Your task to perform on an android device: set the timer Image 0: 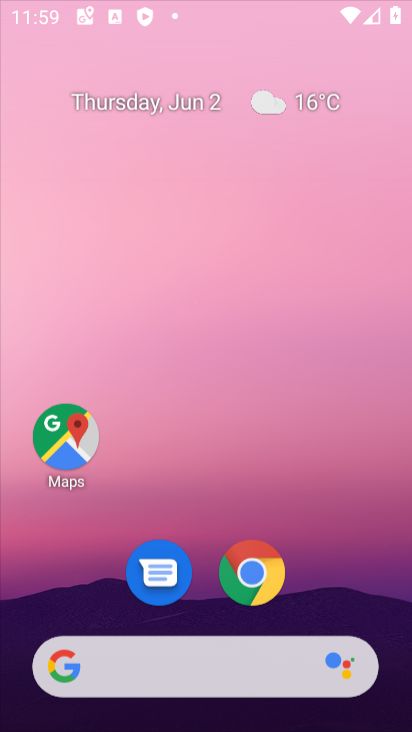
Step 0: click (388, 130)
Your task to perform on an android device: set the timer Image 1: 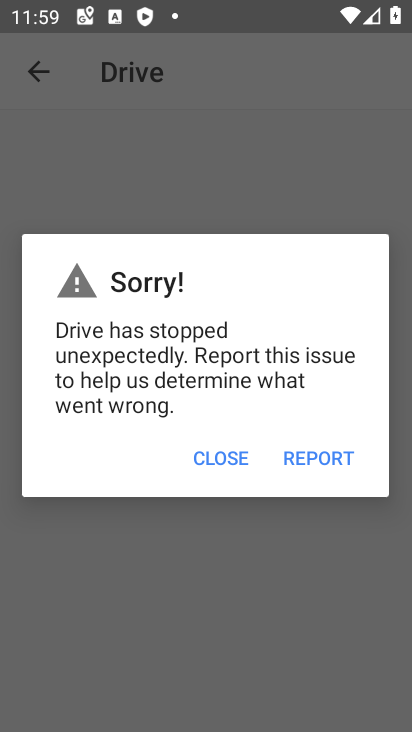
Step 1: drag from (334, 554) to (329, 9)
Your task to perform on an android device: set the timer Image 2: 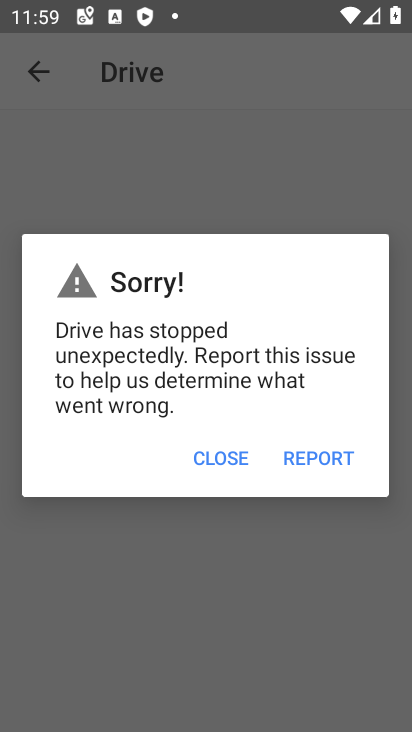
Step 2: press home button
Your task to perform on an android device: set the timer Image 3: 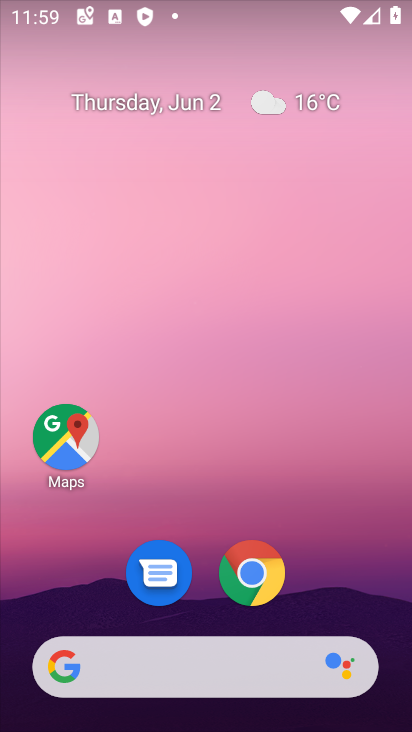
Step 3: drag from (361, 550) to (274, 29)
Your task to perform on an android device: set the timer Image 4: 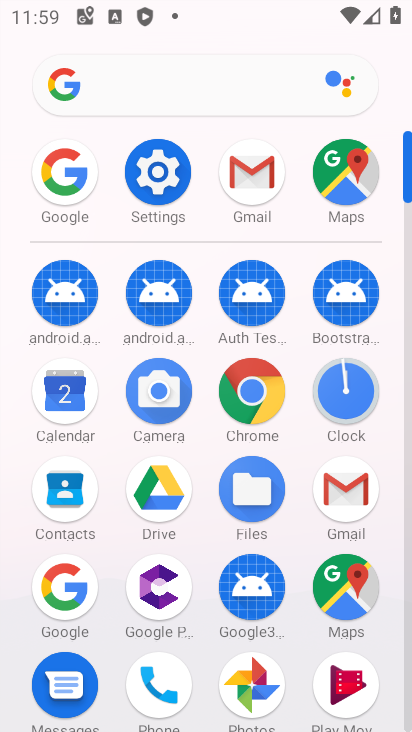
Step 4: click (362, 418)
Your task to perform on an android device: set the timer Image 5: 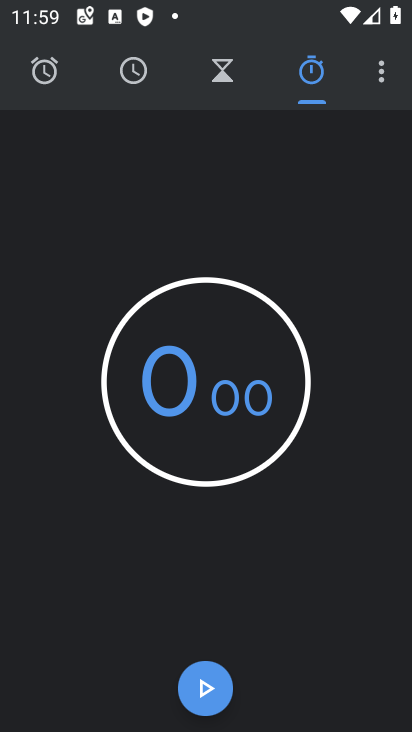
Step 5: click (225, 76)
Your task to perform on an android device: set the timer Image 6: 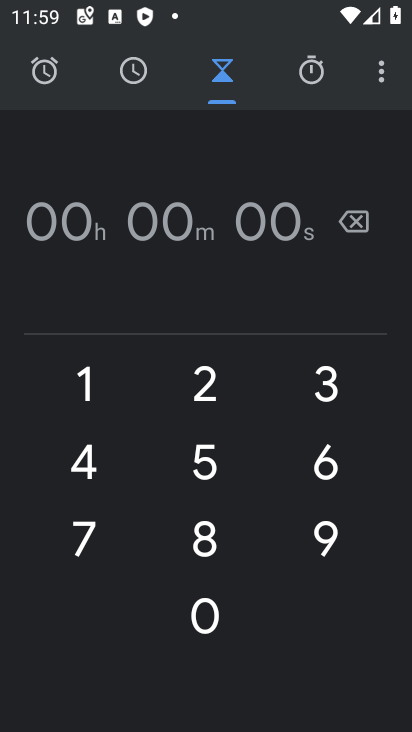
Step 6: click (232, 399)
Your task to perform on an android device: set the timer Image 7: 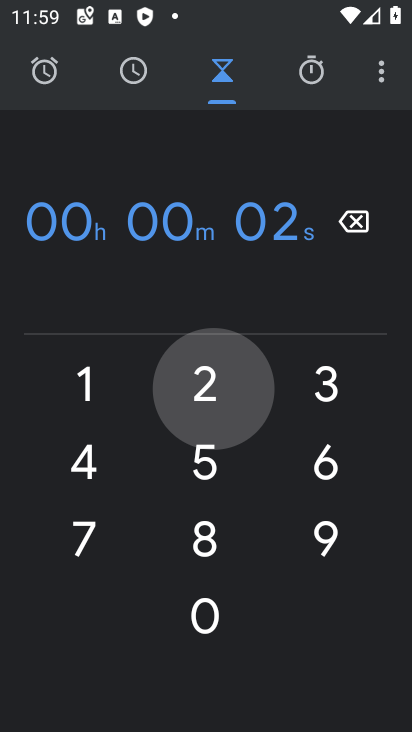
Step 7: click (215, 462)
Your task to perform on an android device: set the timer Image 8: 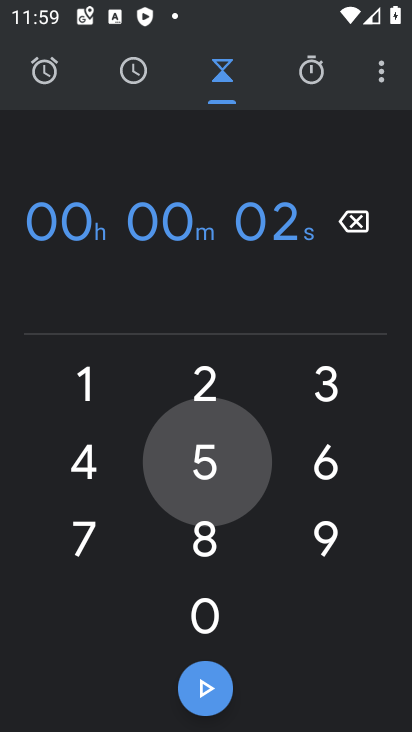
Step 8: click (217, 376)
Your task to perform on an android device: set the timer Image 9: 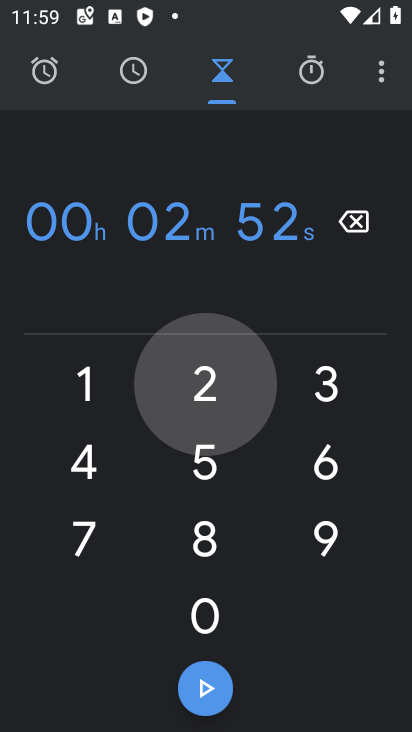
Step 9: click (197, 465)
Your task to perform on an android device: set the timer Image 10: 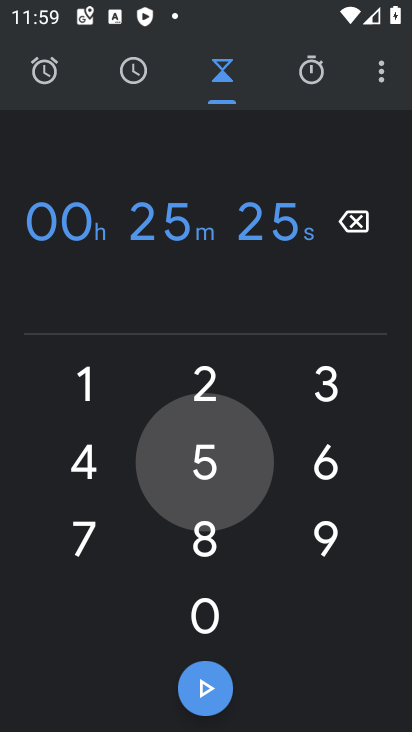
Step 10: click (215, 395)
Your task to perform on an android device: set the timer Image 11: 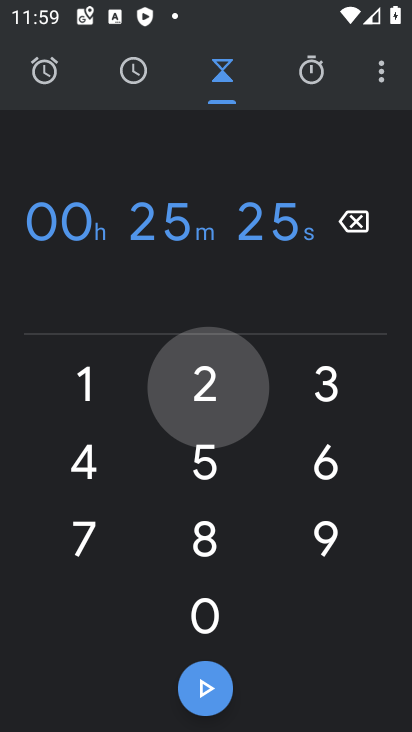
Step 11: click (200, 452)
Your task to perform on an android device: set the timer Image 12: 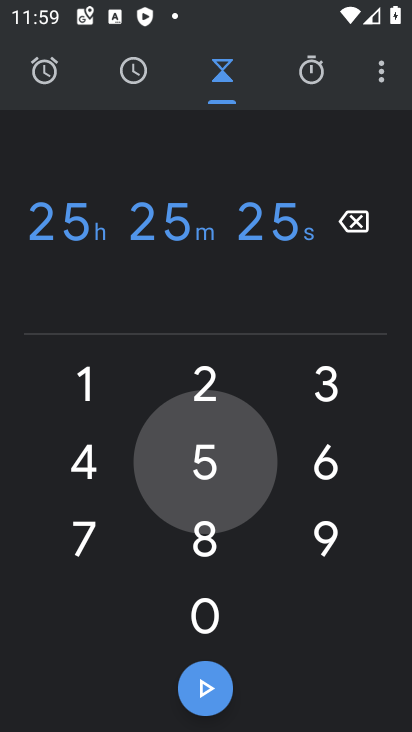
Step 12: click (207, 412)
Your task to perform on an android device: set the timer Image 13: 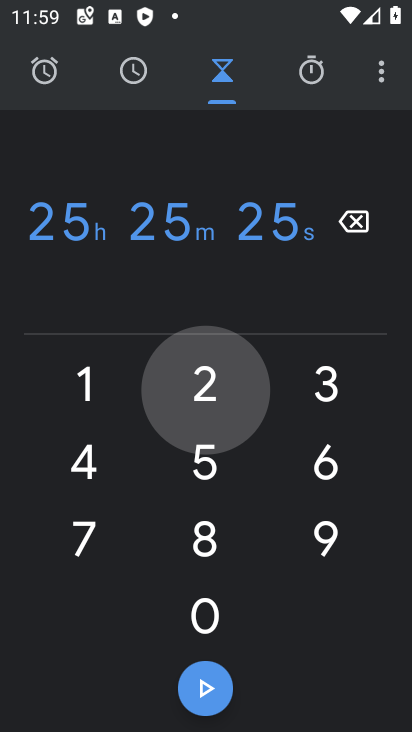
Step 13: click (199, 450)
Your task to perform on an android device: set the timer Image 14: 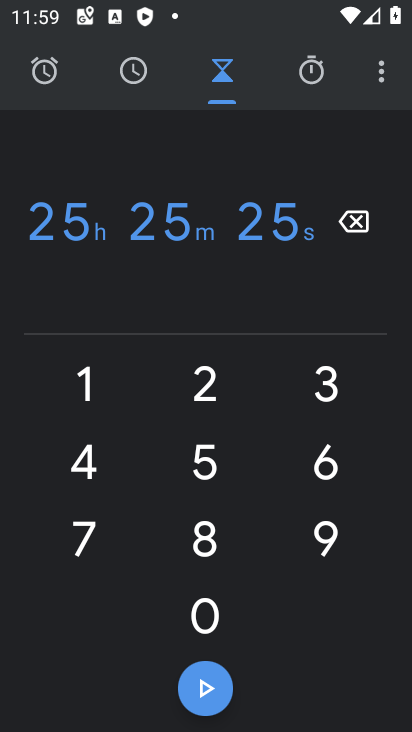
Step 14: click (201, 678)
Your task to perform on an android device: set the timer Image 15: 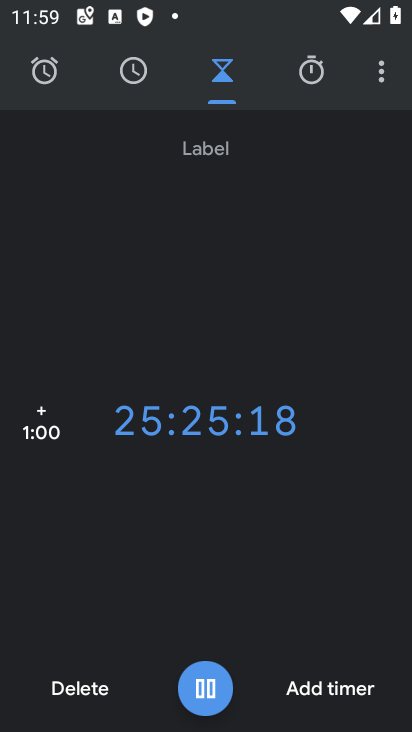
Step 15: task complete